Your task to perform on an android device: What's the weather going to be tomorrow? Image 0: 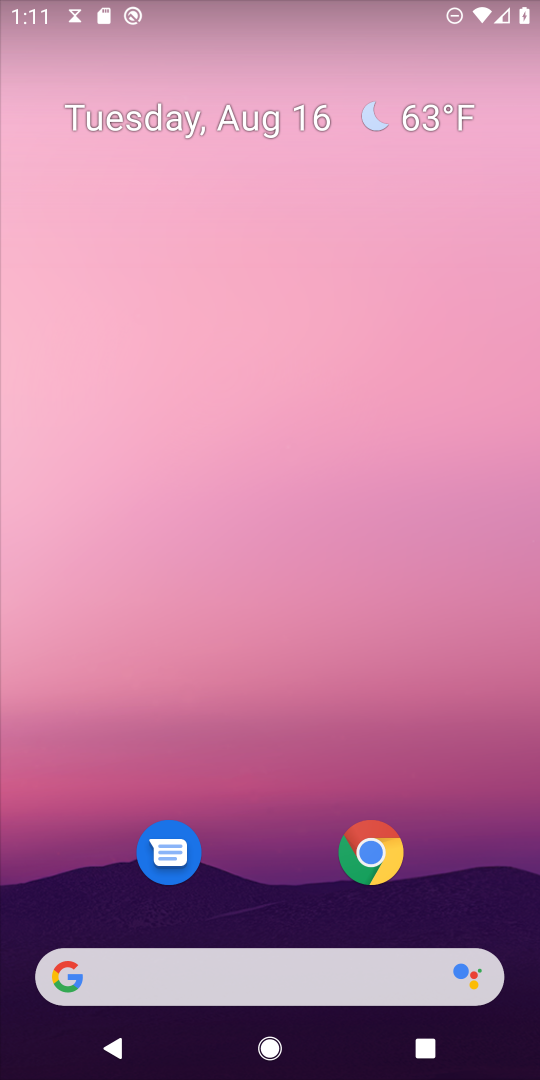
Step 0: click (288, 986)
Your task to perform on an android device: What's the weather going to be tomorrow? Image 1: 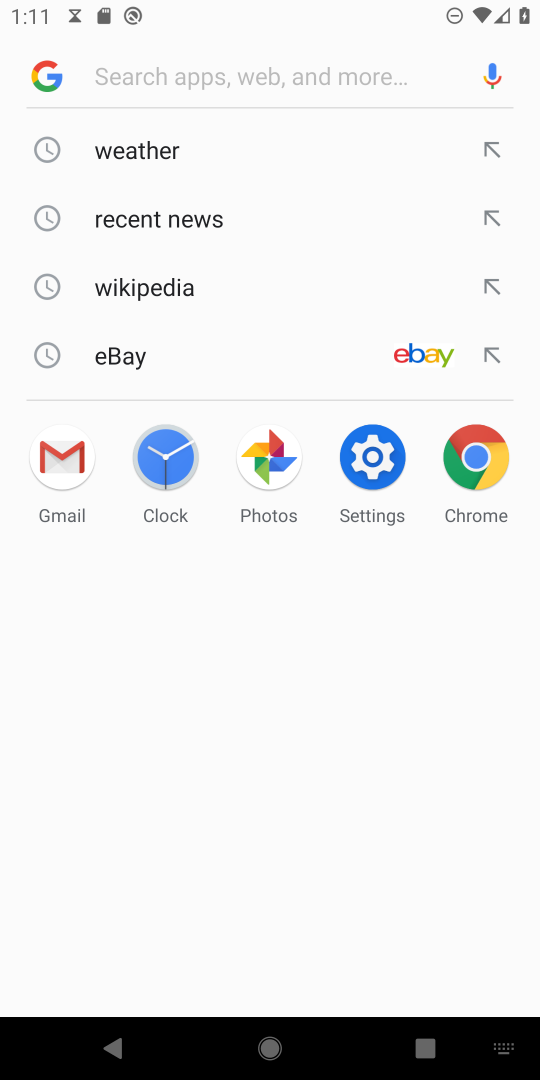
Step 1: click (164, 149)
Your task to perform on an android device: What's the weather going to be tomorrow? Image 2: 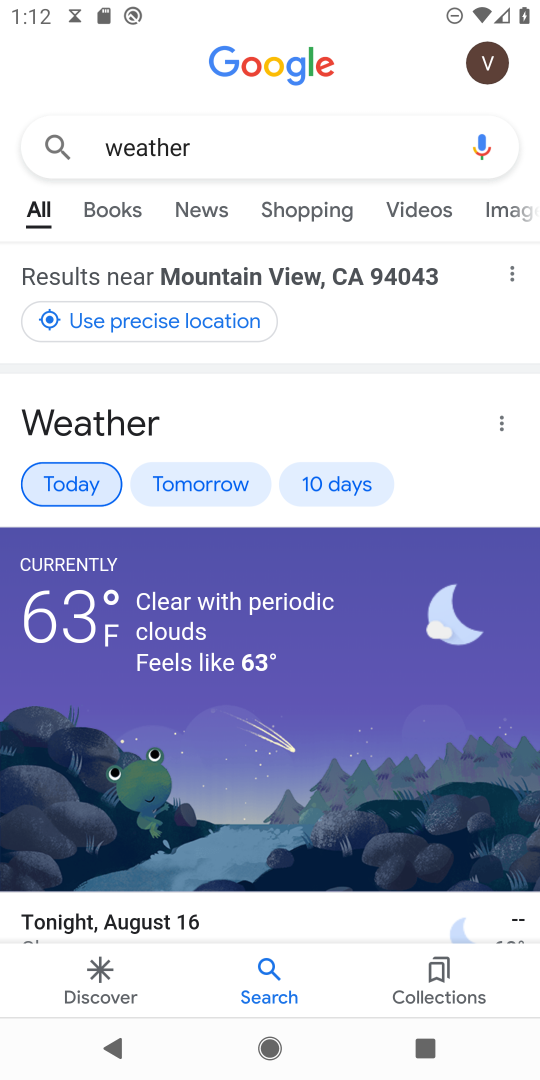
Step 2: click (177, 482)
Your task to perform on an android device: What's the weather going to be tomorrow? Image 3: 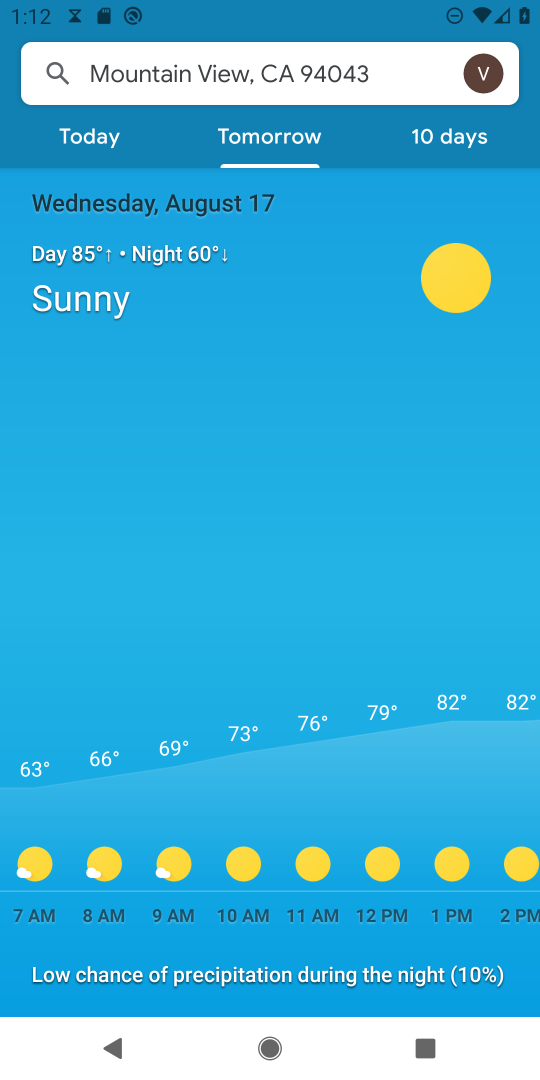
Step 3: task complete